Your task to perform on an android device: star an email in the gmail app Image 0: 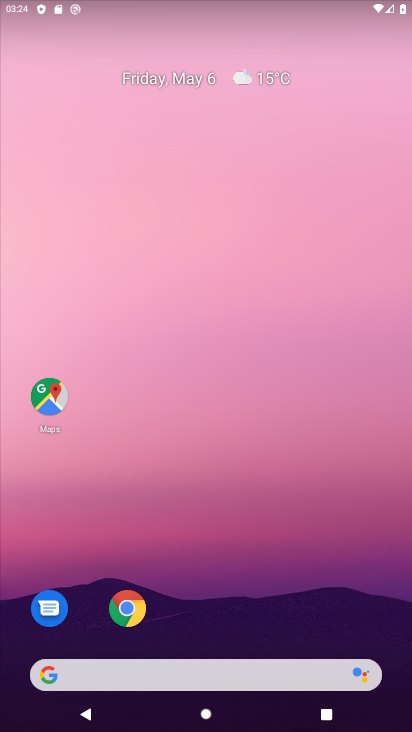
Step 0: drag from (221, 664) to (265, 156)
Your task to perform on an android device: star an email in the gmail app Image 1: 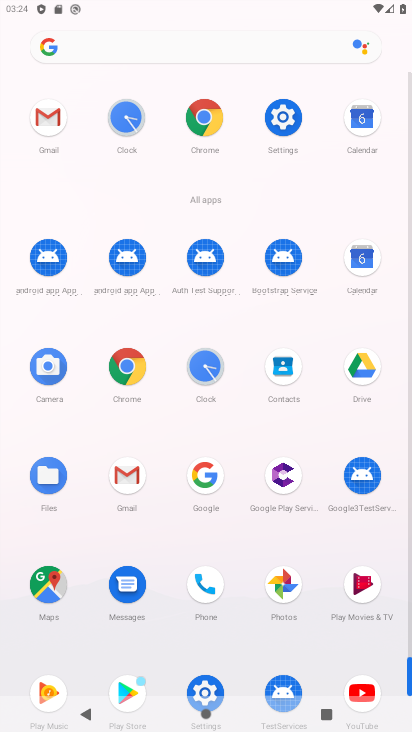
Step 1: click (116, 474)
Your task to perform on an android device: star an email in the gmail app Image 2: 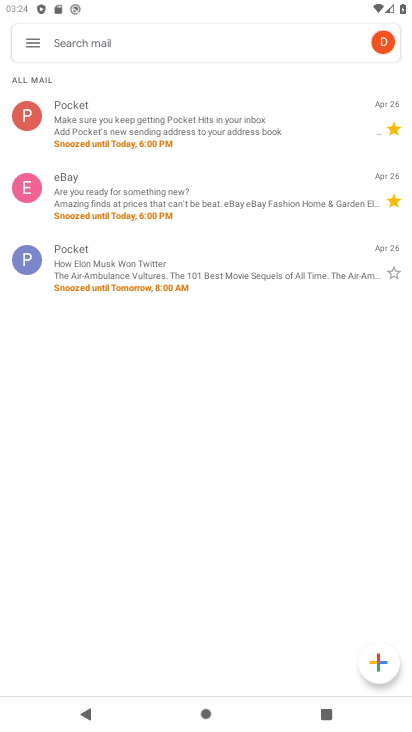
Step 2: click (396, 273)
Your task to perform on an android device: star an email in the gmail app Image 3: 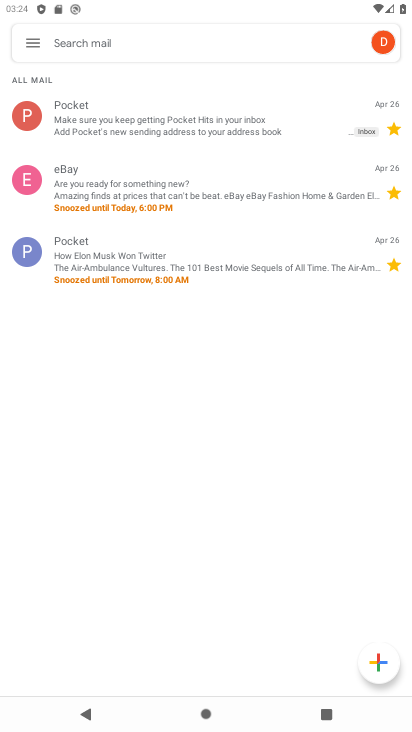
Step 3: task complete